Your task to perform on an android device: Where can I buy a nice beach chair? Image 0: 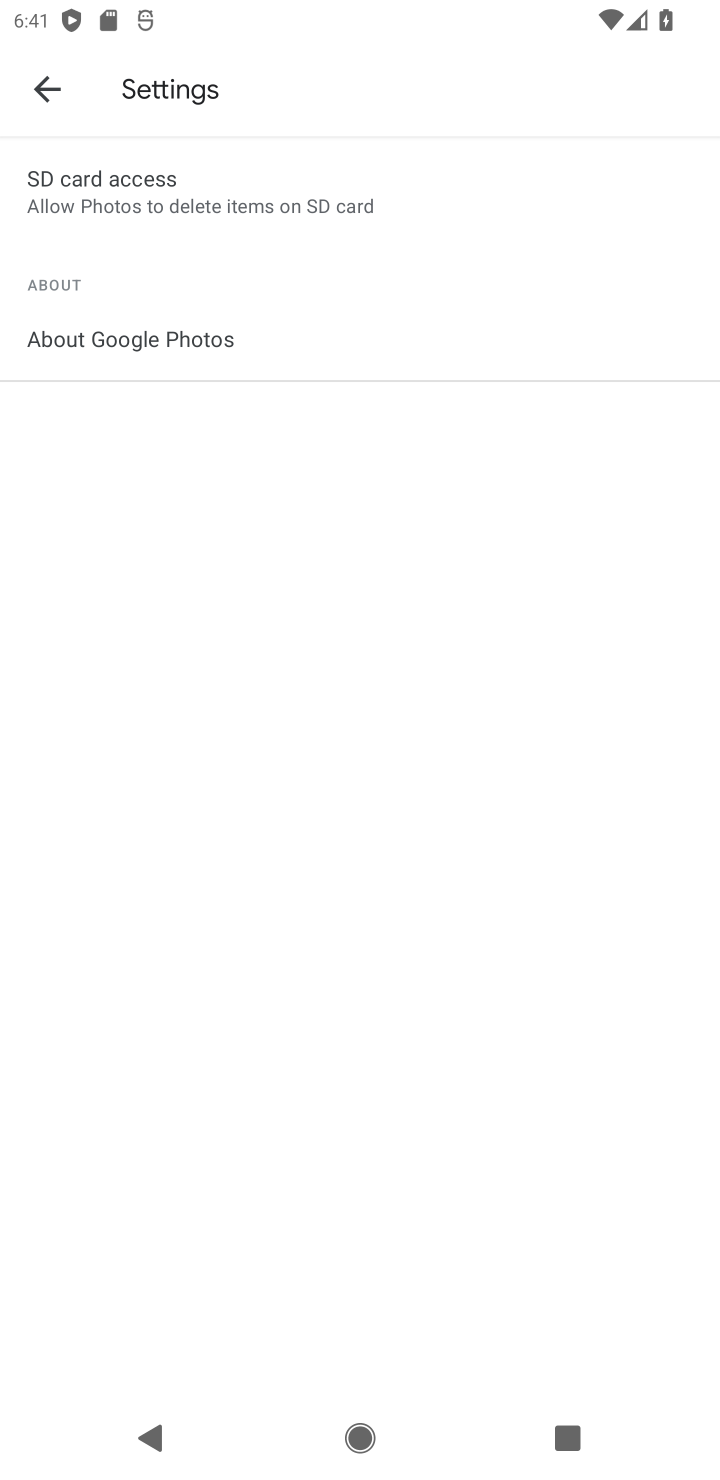
Step 0: press home button
Your task to perform on an android device: Where can I buy a nice beach chair? Image 1: 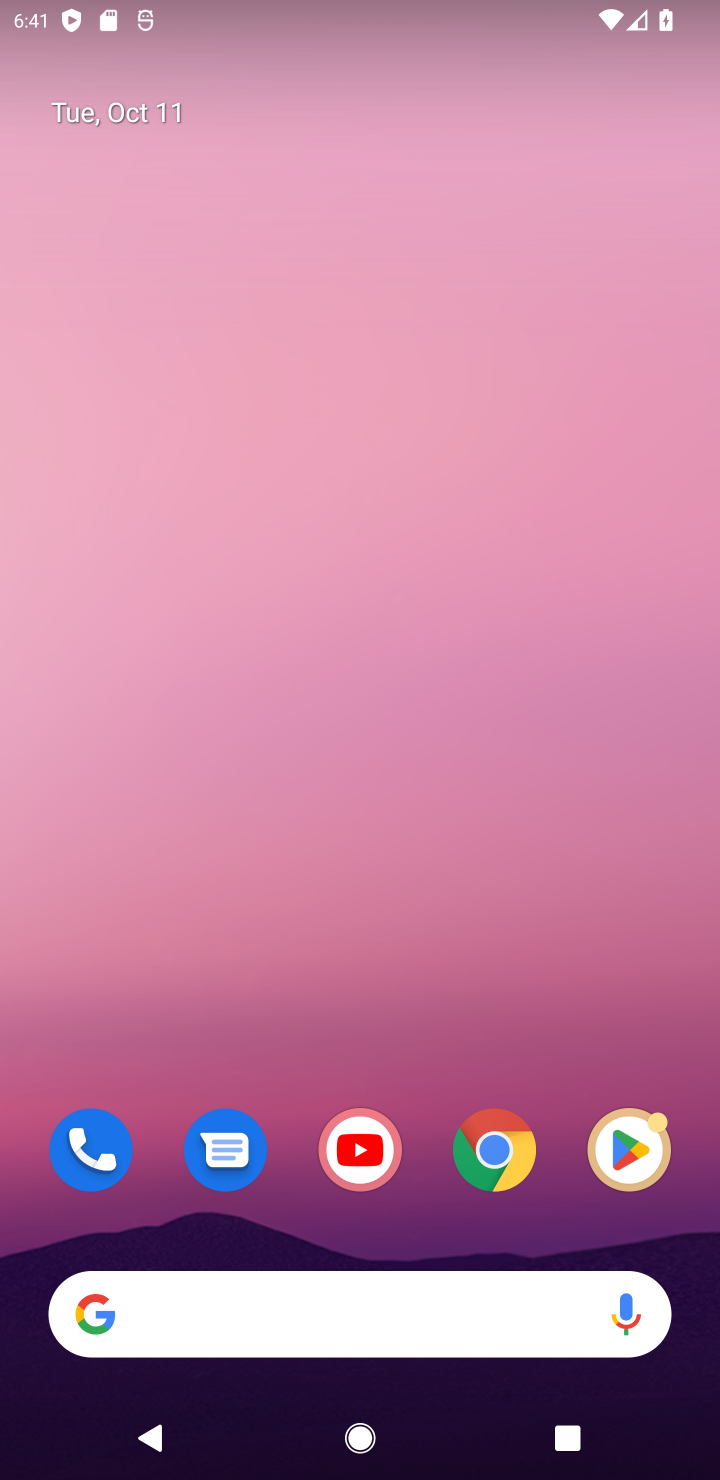
Step 1: click (496, 1167)
Your task to perform on an android device: Where can I buy a nice beach chair? Image 2: 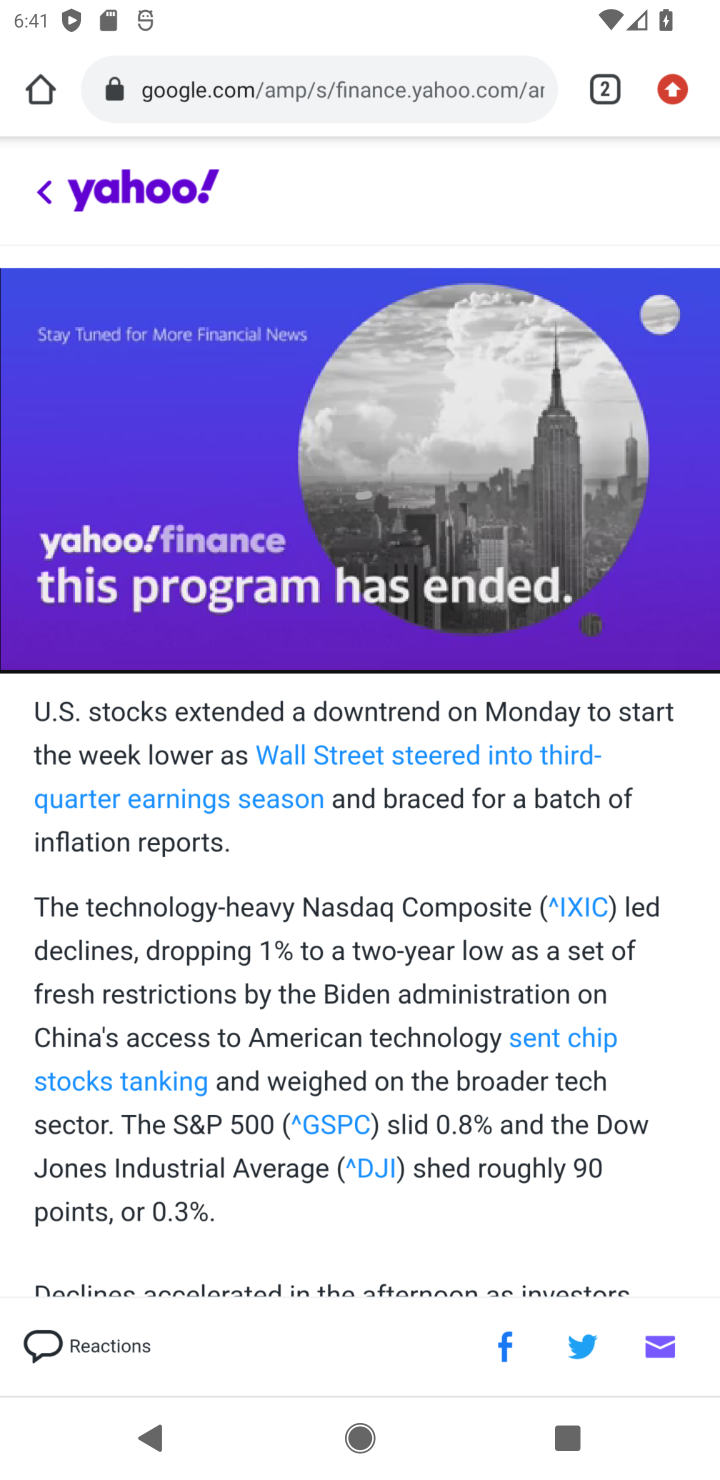
Step 2: click (270, 100)
Your task to perform on an android device: Where can I buy a nice beach chair? Image 3: 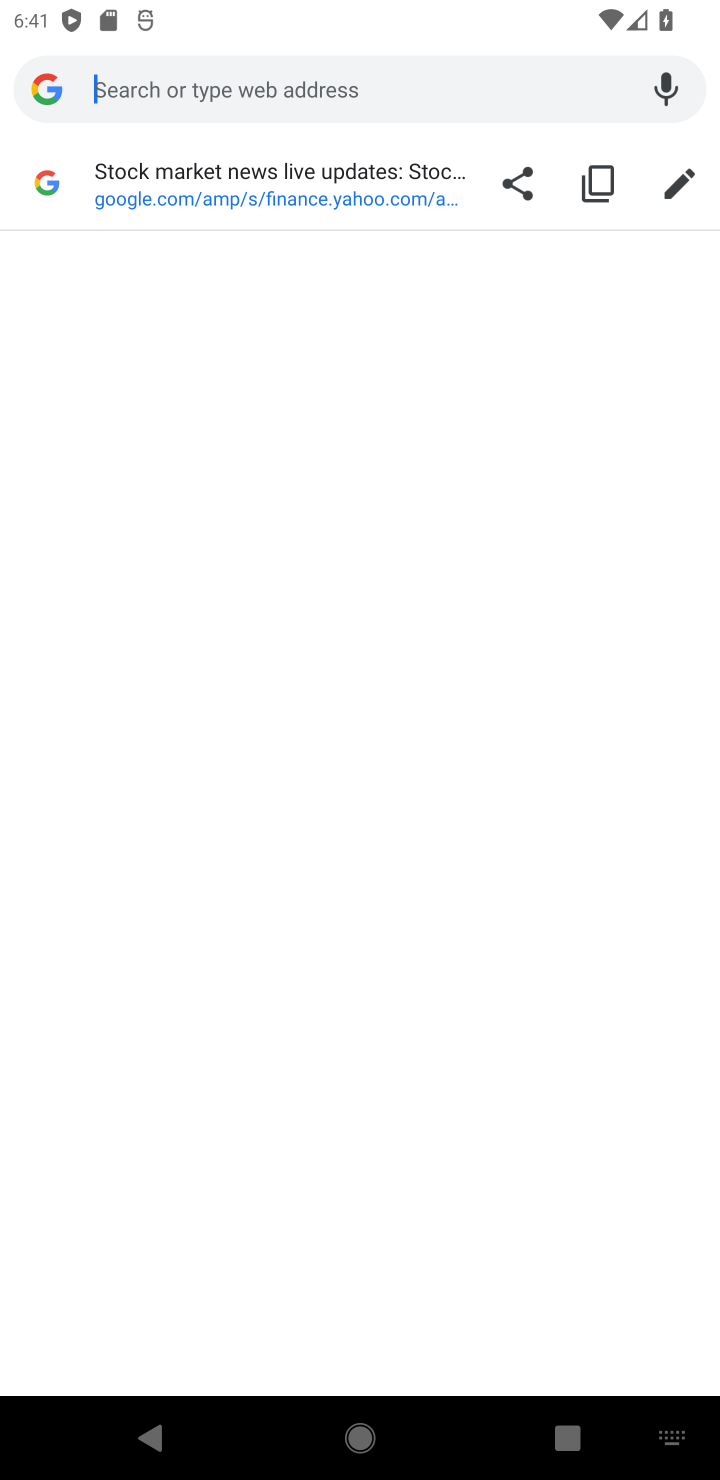
Step 3: type "nice beach chair "
Your task to perform on an android device: Where can I buy a nice beach chair? Image 4: 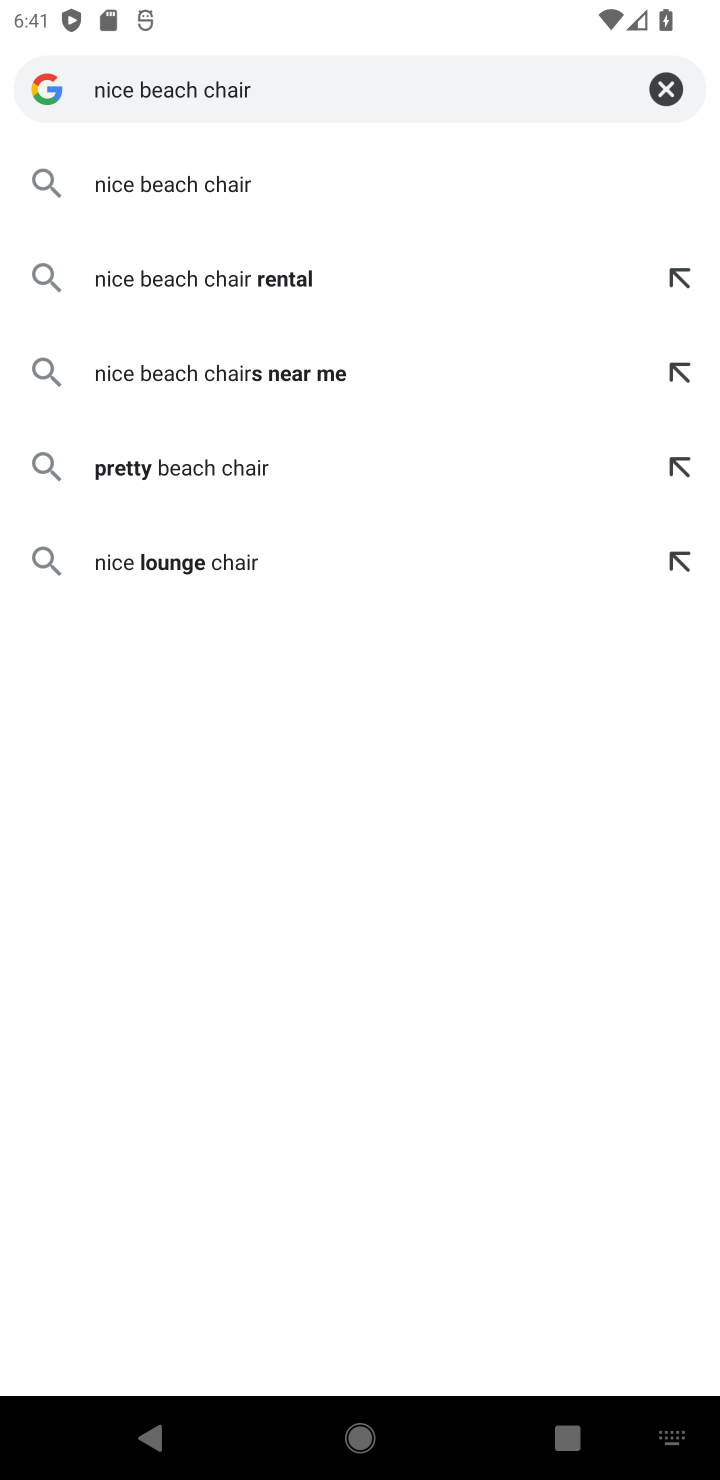
Step 4: click (151, 188)
Your task to perform on an android device: Where can I buy a nice beach chair? Image 5: 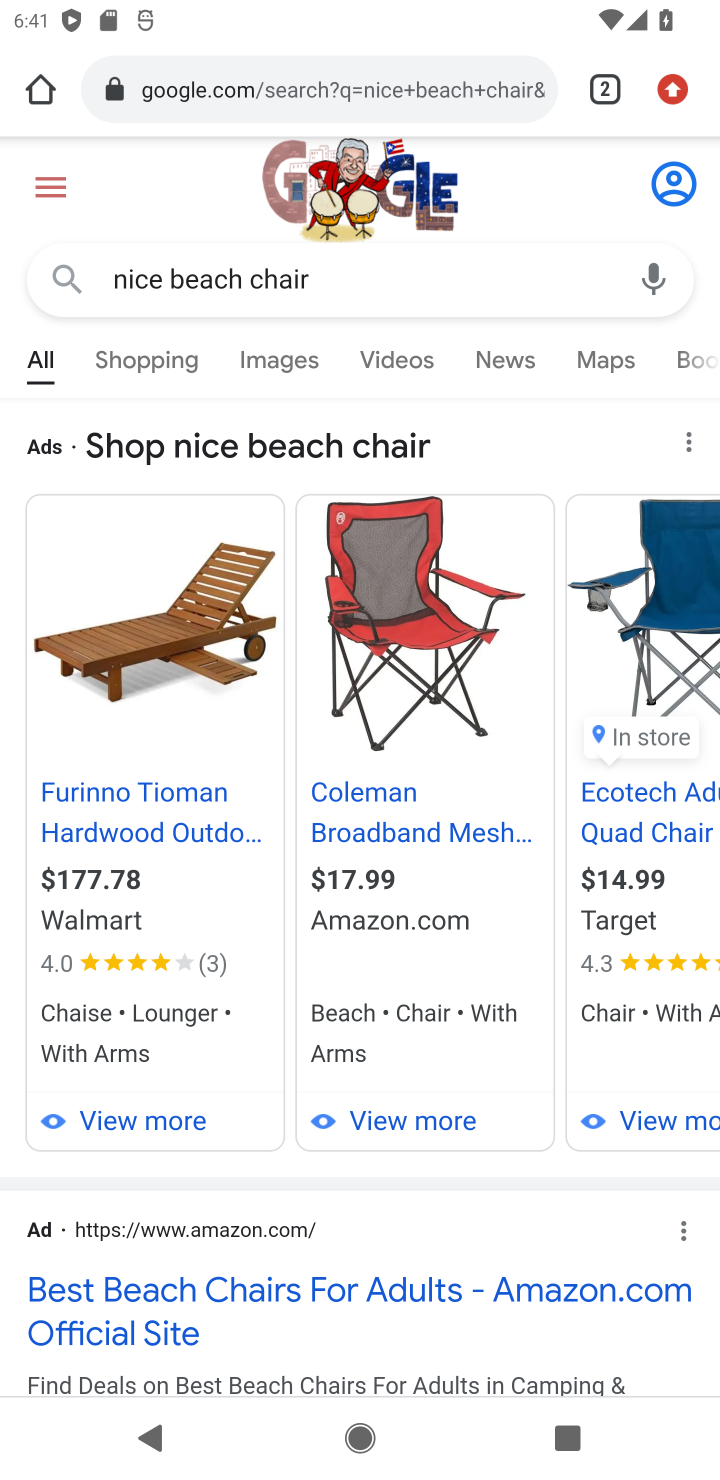
Step 5: task complete